Your task to perform on an android device: Go to accessibility settings Image 0: 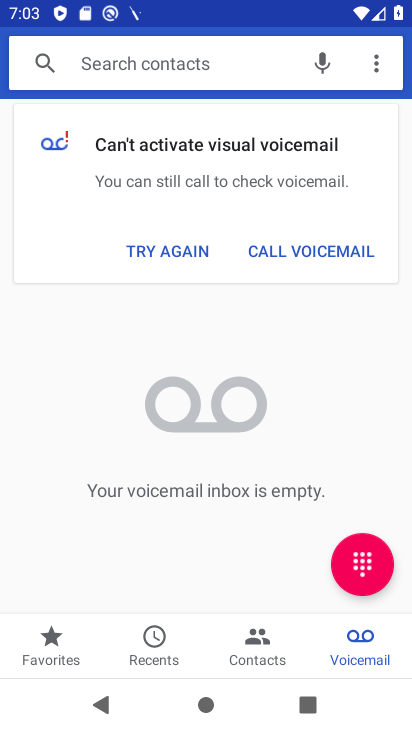
Step 0: press home button
Your task to perform on an android device: Go to accessibility settings Image 1: 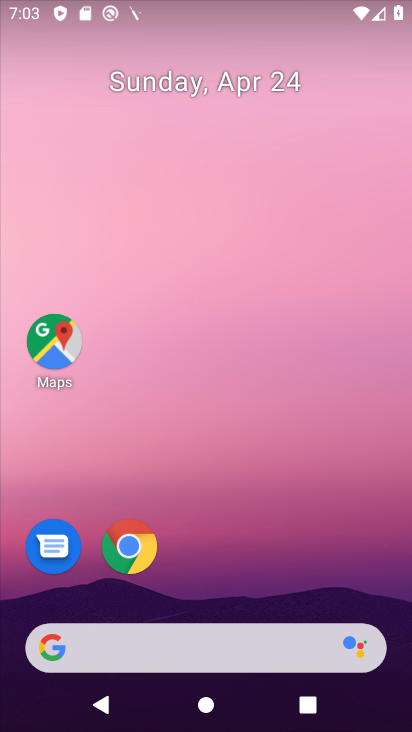
Step 1: drag from (279, 585) to (270, 12)
Your task to perform on an android device: Go to accessibility settings Image 2: 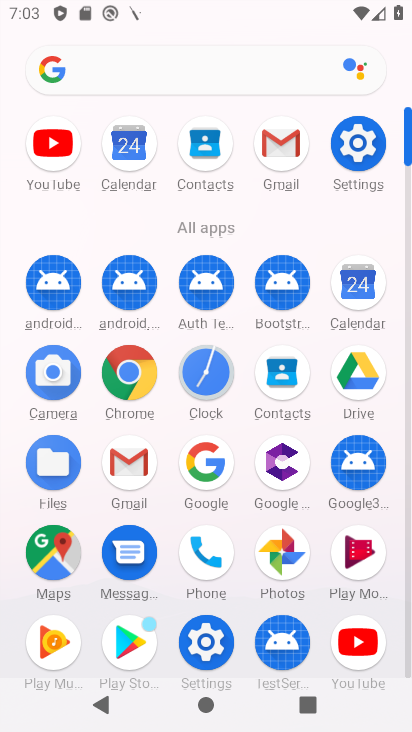
Step 2: click (359, 148)
Your task to perform on an android device: Go to accessibility settings Image 3: 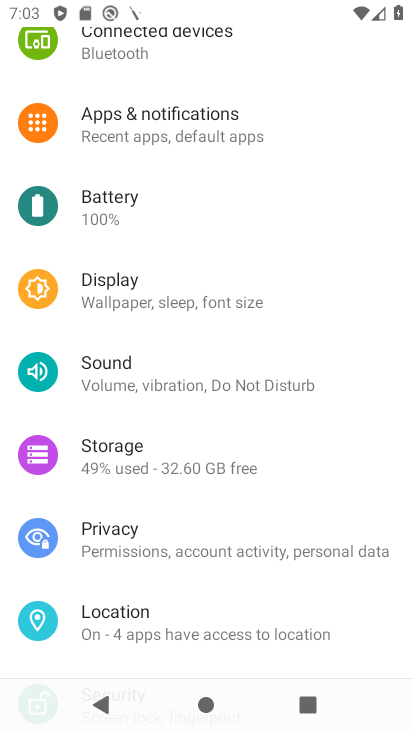
Step 3: drag from (229, 455) to (175, 0)
Your task to perform on an android device: Go to accessibility settings Image 4: 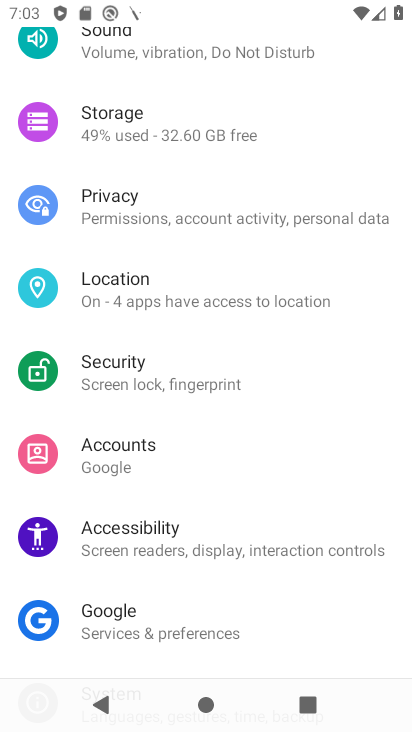
Step 4: click (119, 529)
Your task to perform on an android device: Go to accessibility settings Image 5: 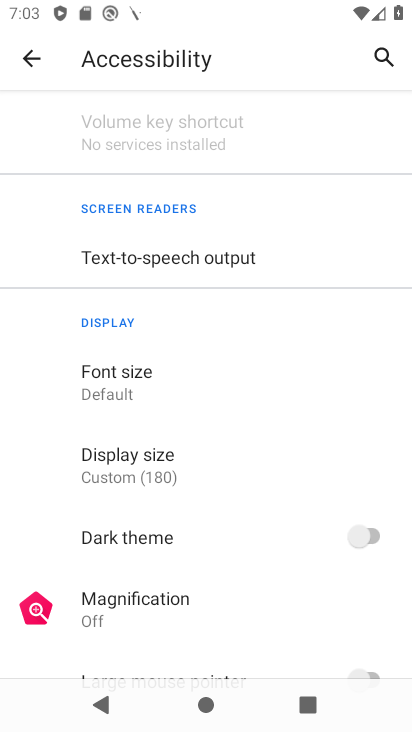
Step 5: task complete